Your task to perform on an android device: see sites visited before in the chrome app Image 0: 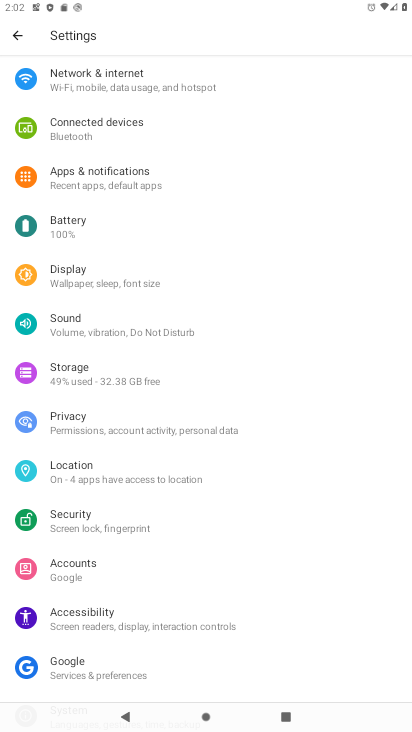
Step 0: press home button
Your task to perform on an android device: see sites visited before in the chrome app Image 1: 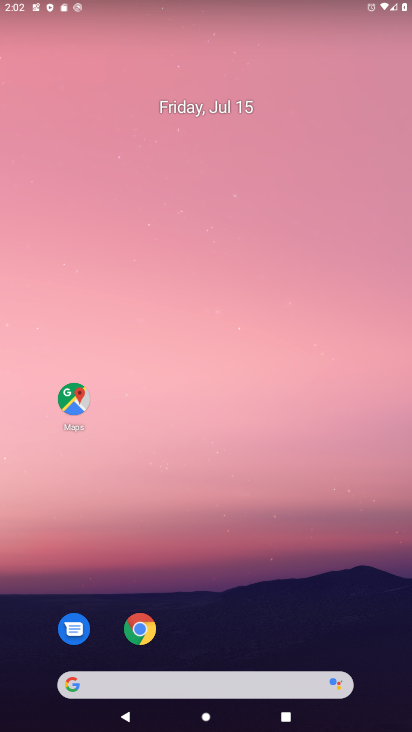
Step 1: drag from (346, 555) to (271, 20)
Your task to perform on an android device: see sites visited before in the chrome app Image 2: 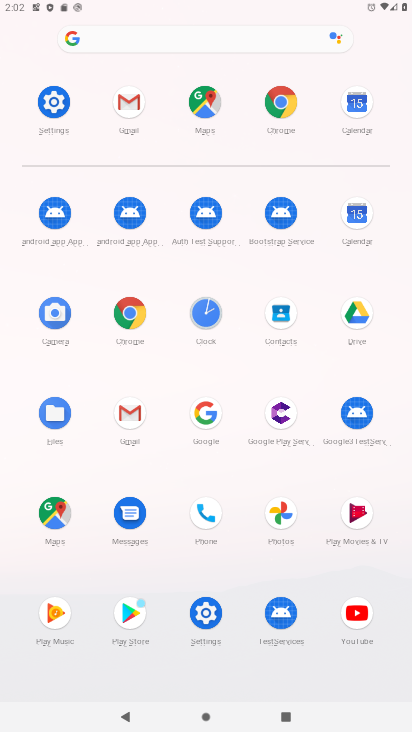
Step 2: click (130, 302)
Your task to perform on an android device: see sites visited before in the chrome app Image 3: 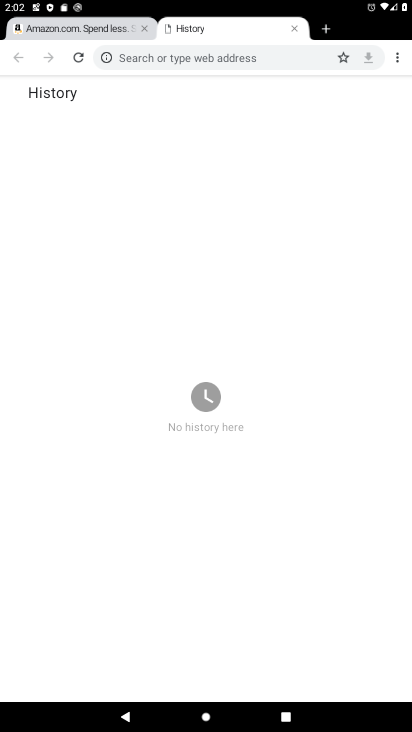
Step 3: task complete